Your task to perform on an android device: remove spam from my inbox in the gmail app Image 0: 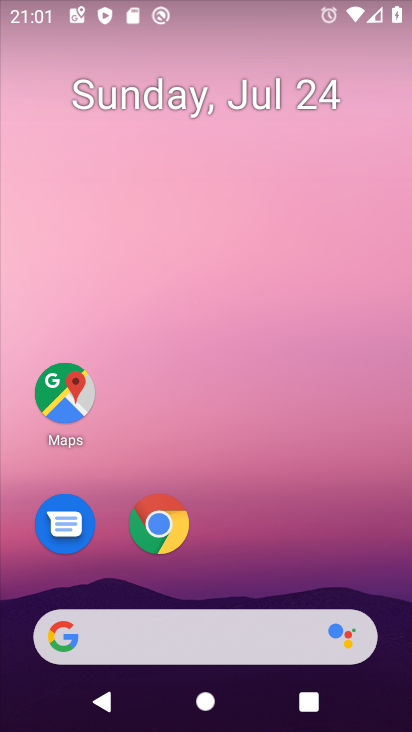
Step 0: drag from (266, 558) to (296, 120)
Your task to perform on an android device: remove spam from my inbox in the gmail app Image 1: 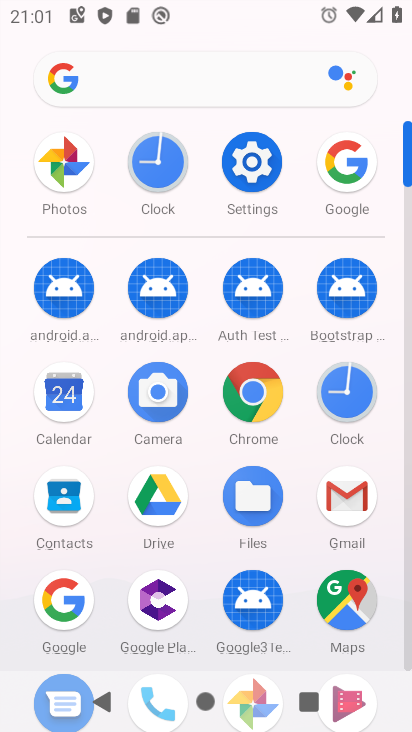
Step 1: click (350, 493)
Your task to perform on an android device: remove spam from my inbox in the gmail app Image 2: 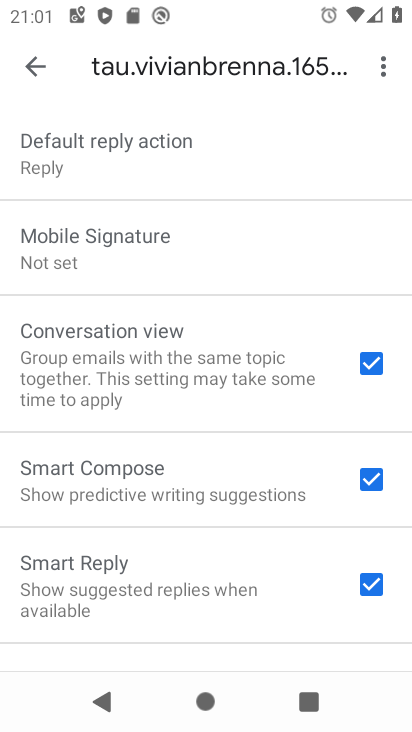
Step 2: click (31, 60)
Your task to perform on an android device: remove spam from my inbox in the gmail app Image 3: 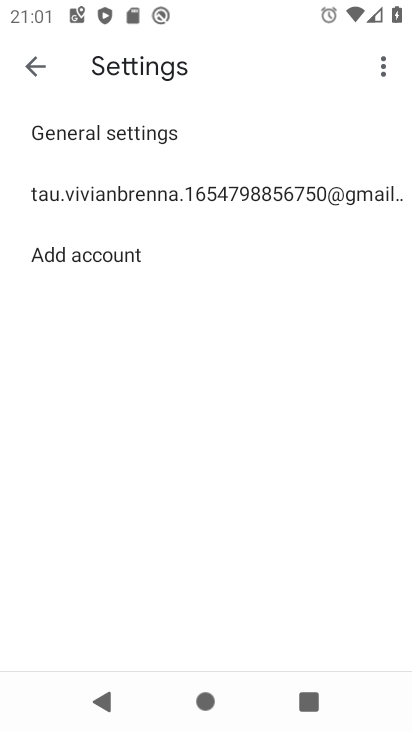
Step 3: click (31, 62)
Your task to perform on an android device: remove spam from my inbox in the gmail app Image 4: 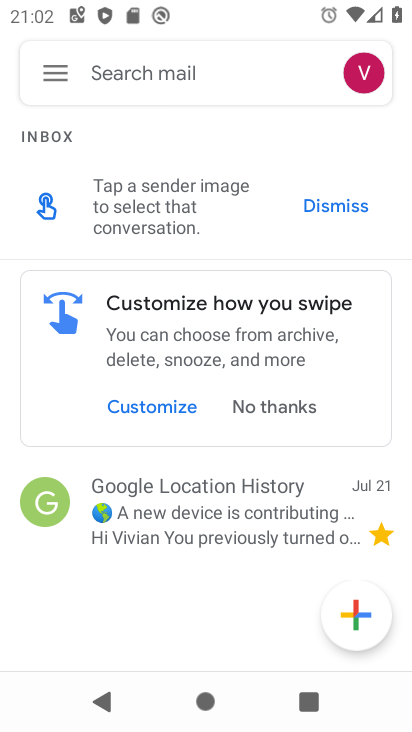
Step 4: click (60, 74)
Your task to perform on an android device: remove spam from my inbox in the gmail app Image 5: 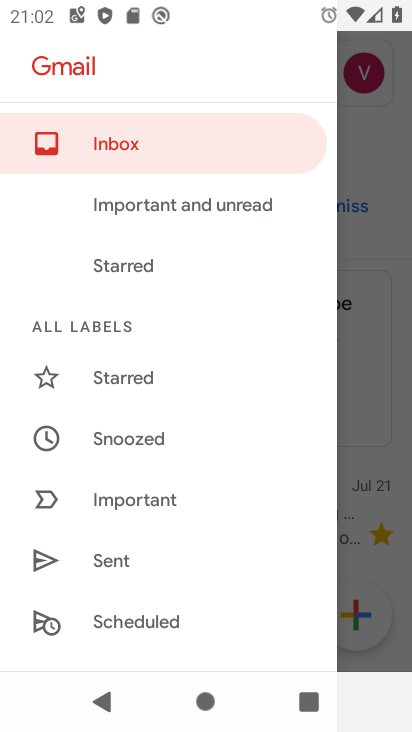
Step 5: drag from (138, 545) to (209, 101)
Your task to perform on an android device: remove spam from my inbox in the gmail app Image 6: 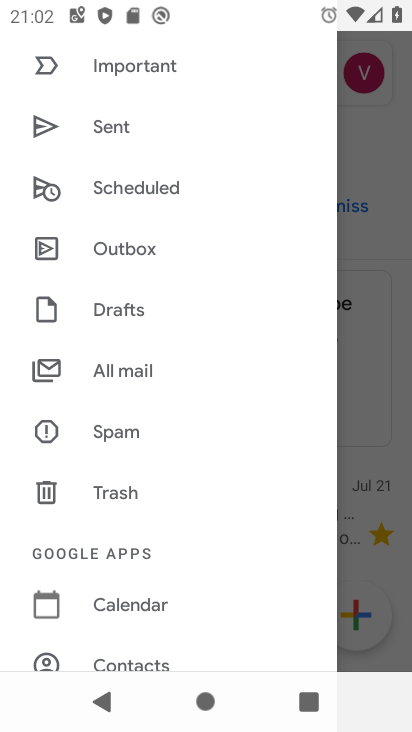
Step 6: click (131, 422)
Your task to perform on an android device: remove spam from my inbox in the gmail app Image 7: 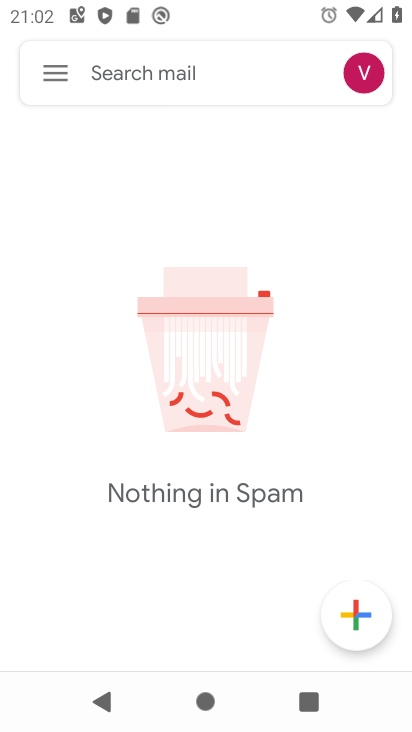
Step 7: task complete